Your task to perform on an android device: Open calendar and show me the second week of next month Image 0: 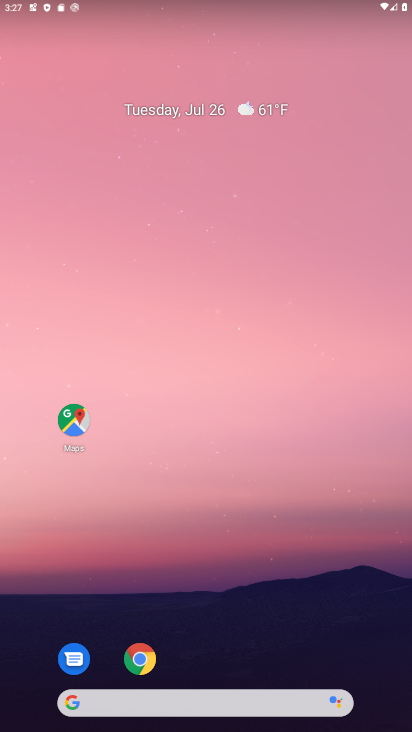
Step 0: drag from (177, 427) to (201, 207)
Your task to perform on an android device: Open calendar and show me the second week of next month Image 1: 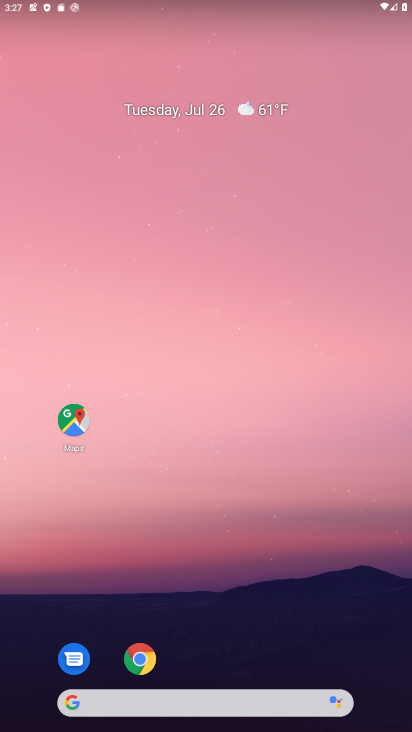
Step 1: drag from (211, 548) to (202, 48)
Your task to perform on an android device: Open calendar and show me the second week of next month Image 2: 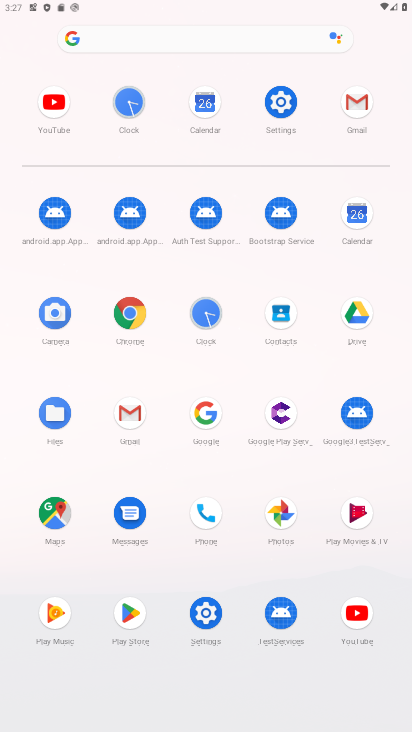
Step 2: click (366, 225)
Your task to perform on an android device: Open calendar and show me the second week of next month Image 3: 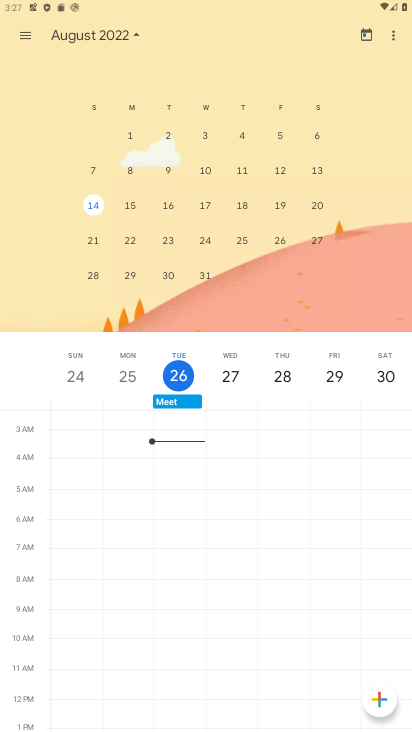
Step 3: click (92, 173)
Your task to perform on an android device: Open calendar and show me the second week of next month Image 4: 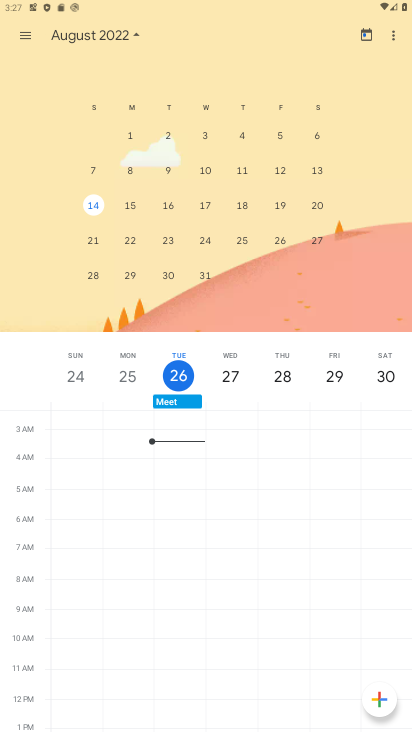
Step 4: click (92, 173)
Your task to perform on an android device: Open calendar and show me the second week of next month Image 5: 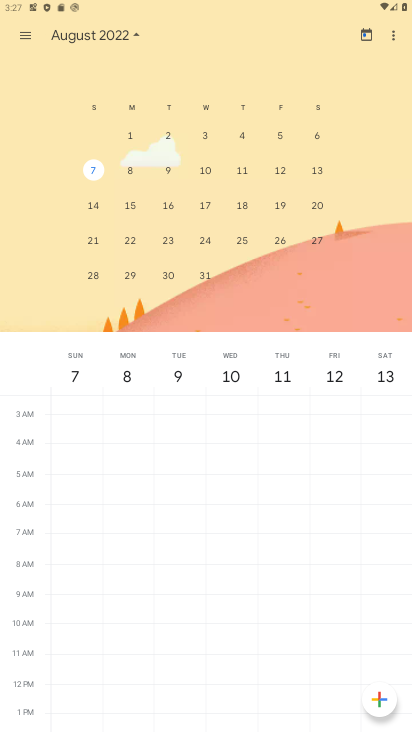
Step 5: task complete